Your task to perform on an android device: Go to Amazon Image 0: 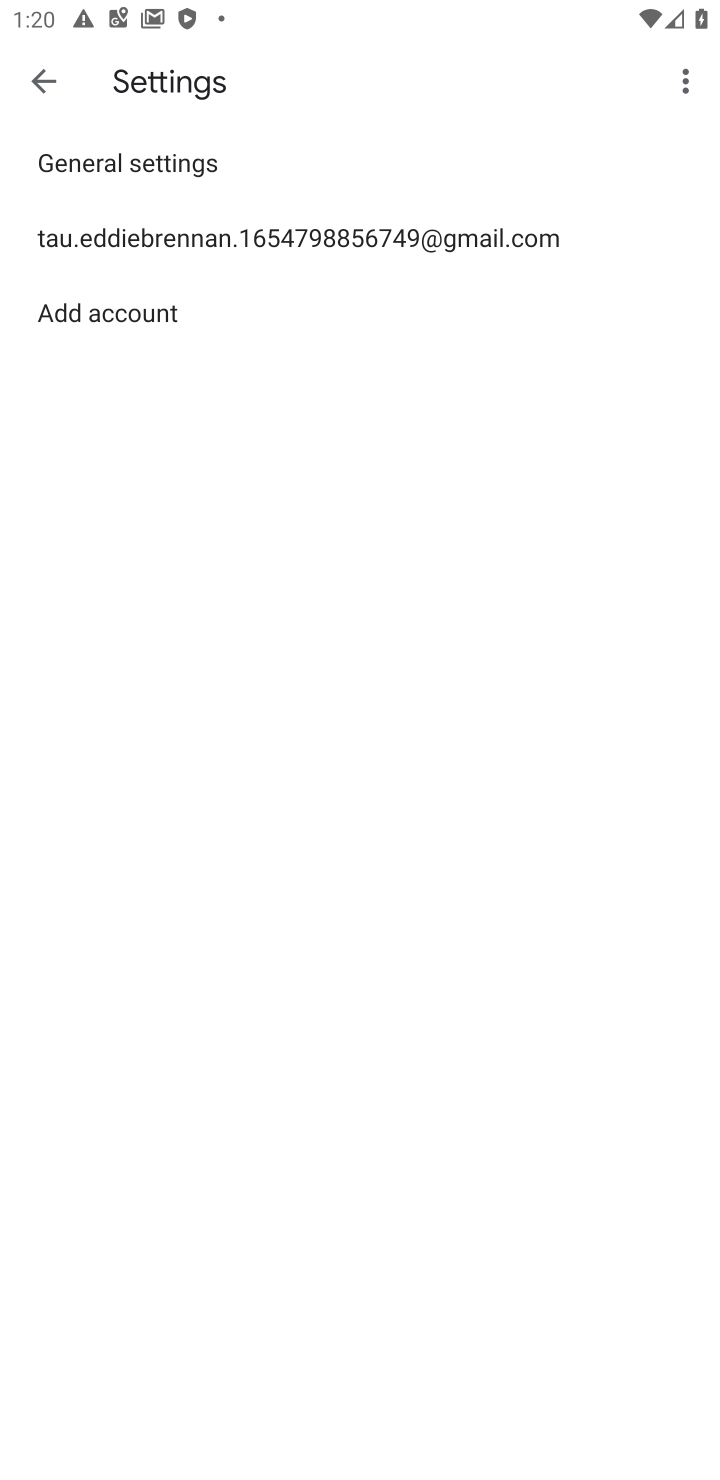
Step 0: press home button
Your task to perform on an android device: Go to Amazon Image 1: 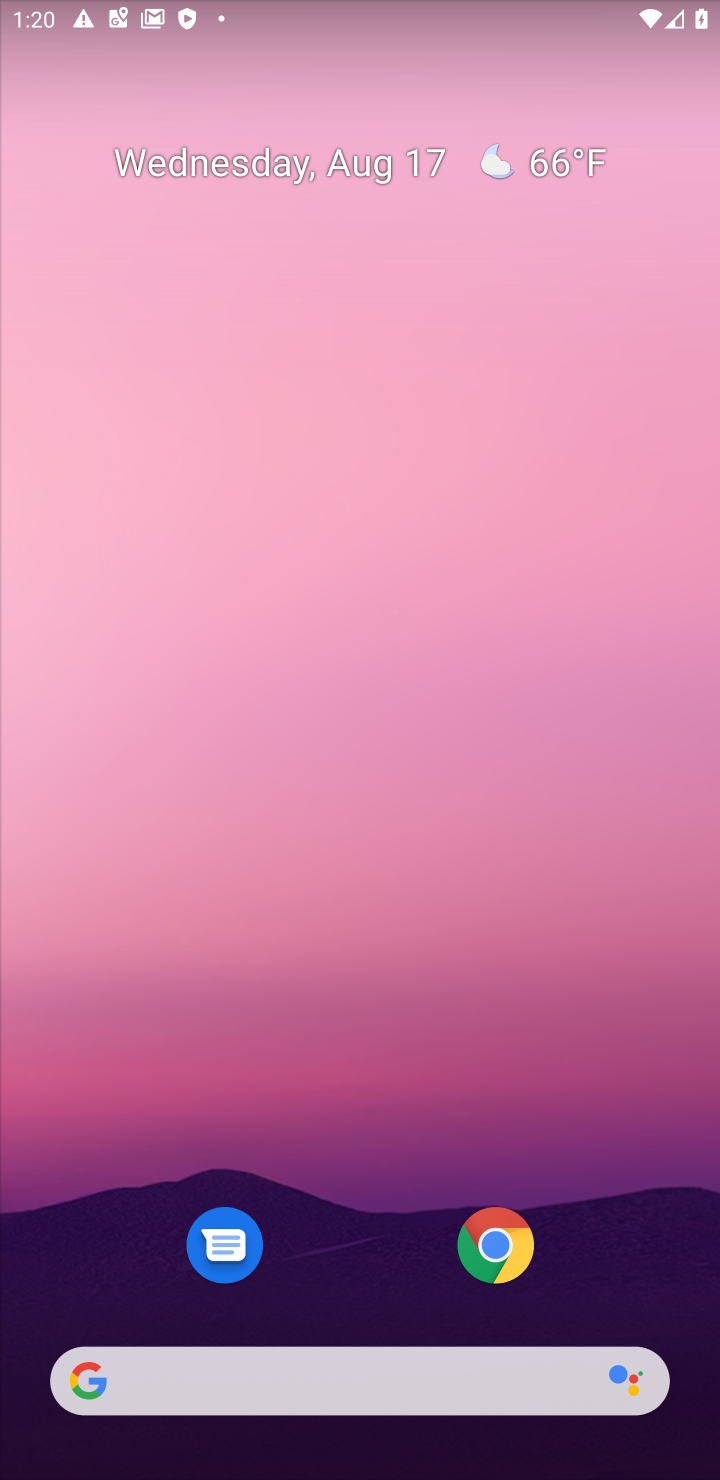
Step 1: click (500, 1258)
Your task to perform on an android device: Go to Amazon Image 2: 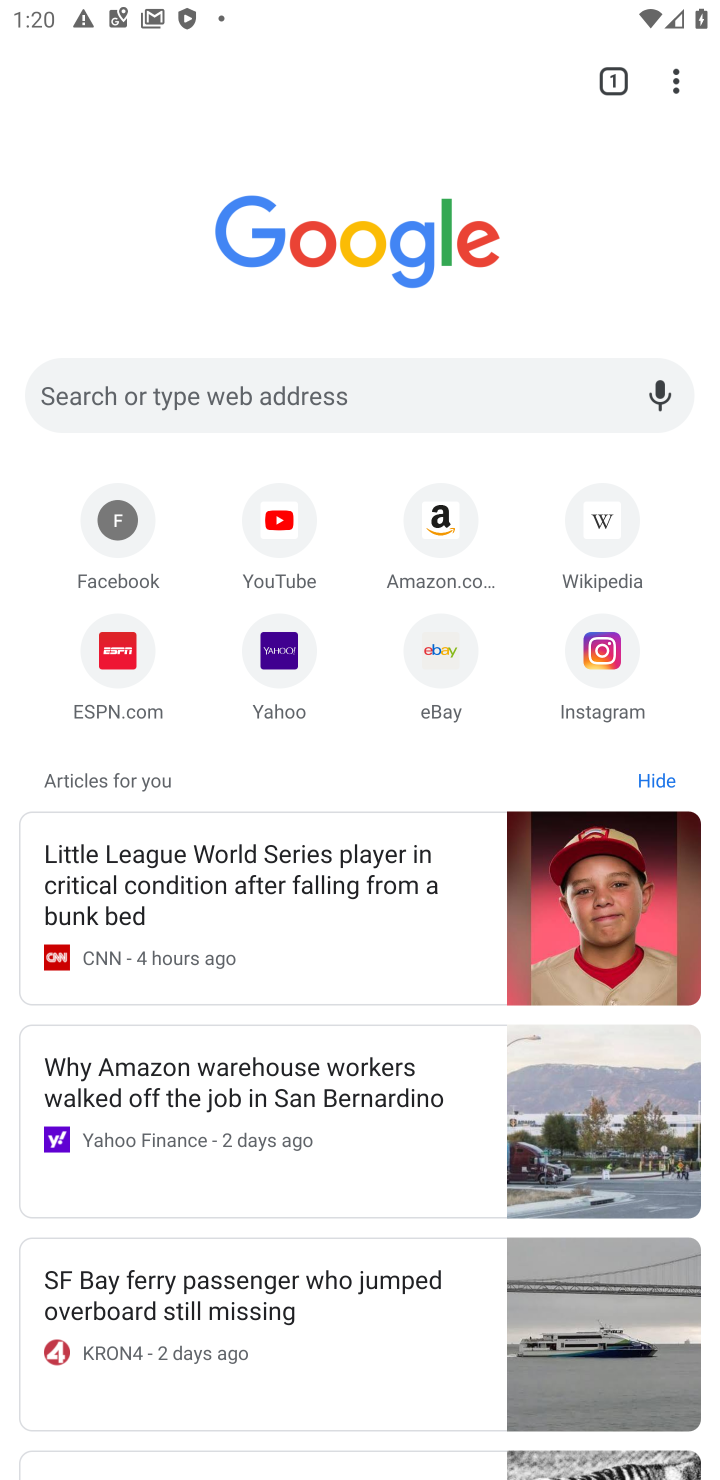
Step 2: click (450, 524)
Your task to perform on an android device: Go to Amazon Image 3: 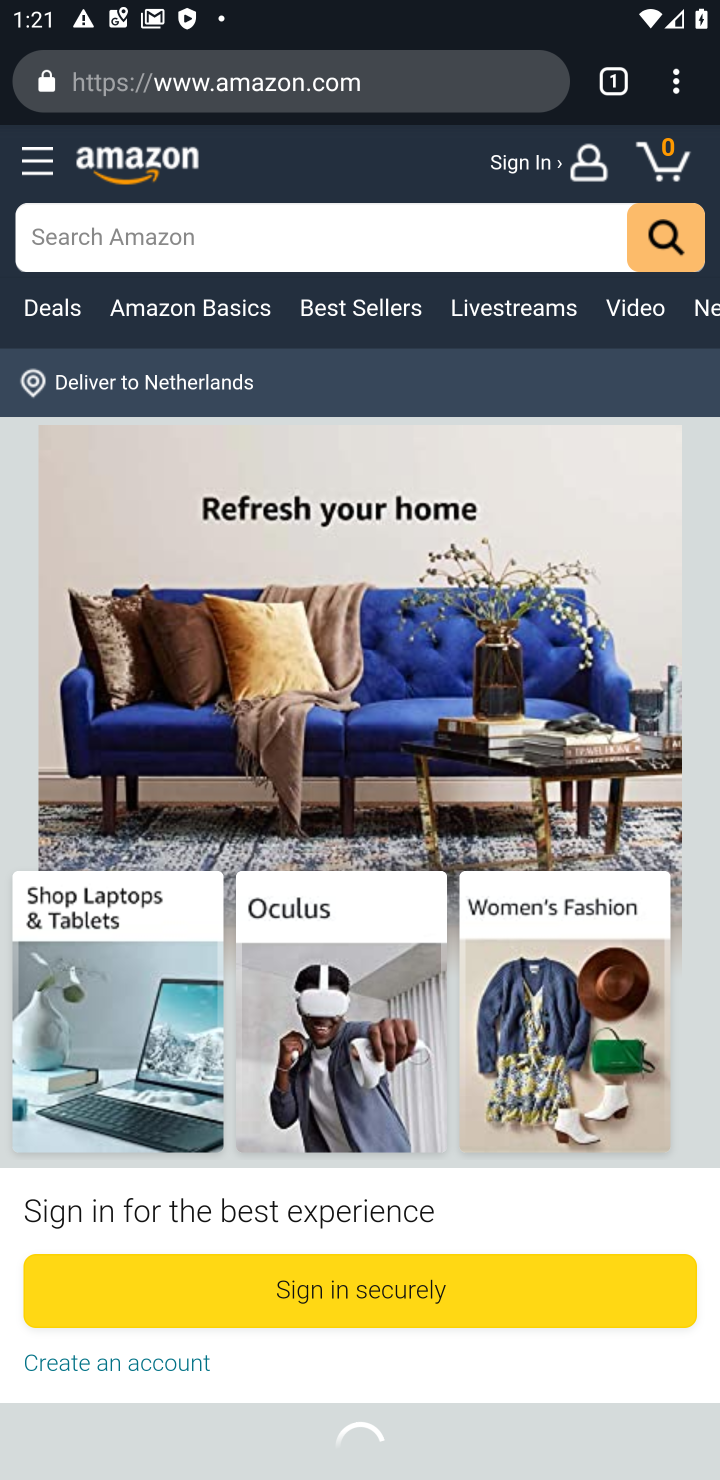
Step 3: task complete